Your task to perform on an android device: check android version Image 0: 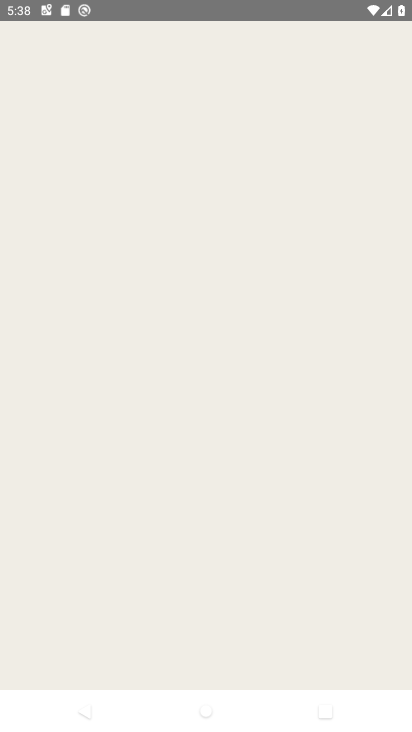
Step 0: drag from (170, 123) to (161, 88)
Your task to perform on an android device: check android version Image 1: 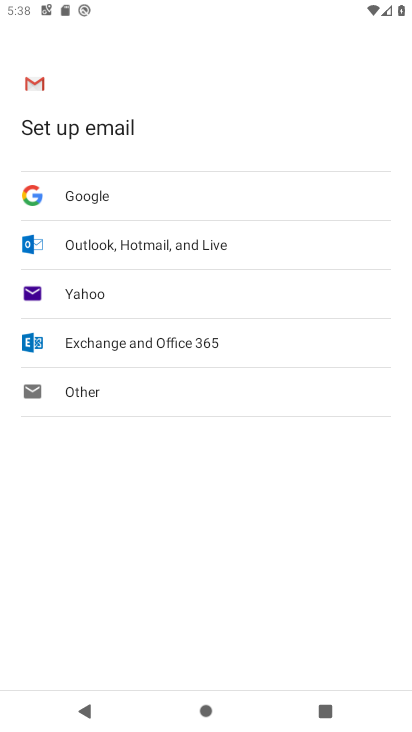
Step 1: press home button
Your task to perform on an android device: check android version Image 2: 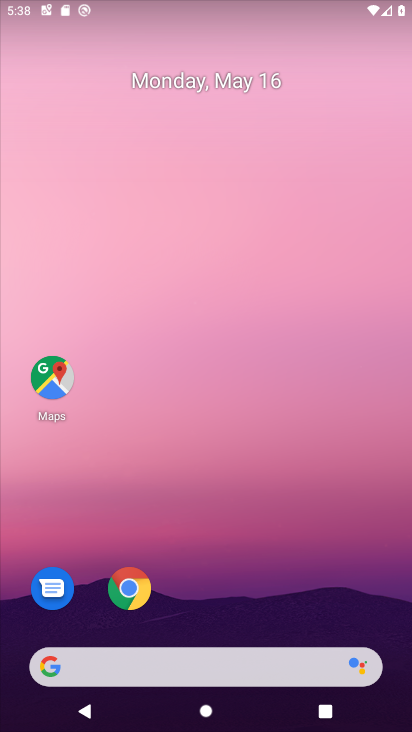
Step 2: drag from (263, 513) to (230, 25)
Your task to perform on an android device: check android version Image 3: 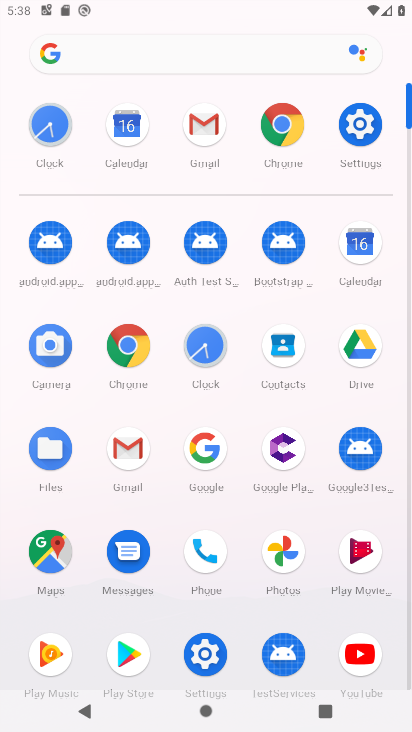
Step 3: click (353, 134)
Your task to perform on an android device: check android version Image 4: 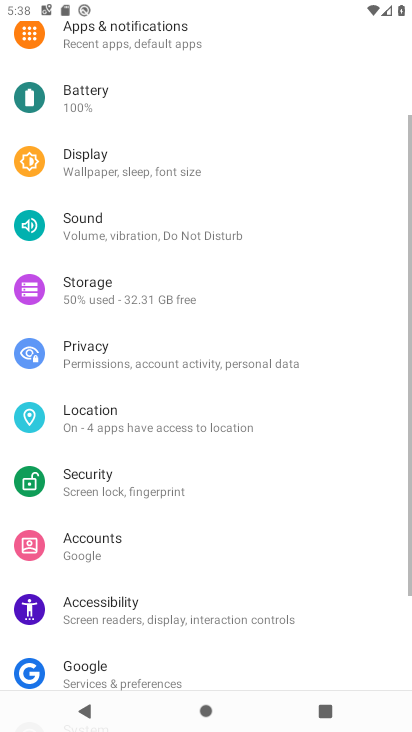
Step 4: drag from (245, 576) to (251, 101)
Your task to perform on an android device: check android version Image 5: 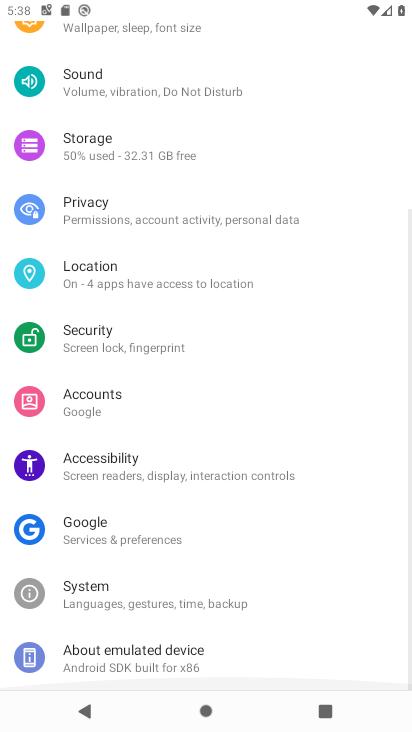
Step 5: drag from (224, 567) to (227, 159)
Your task to perform on an android device: check android version Image 6: 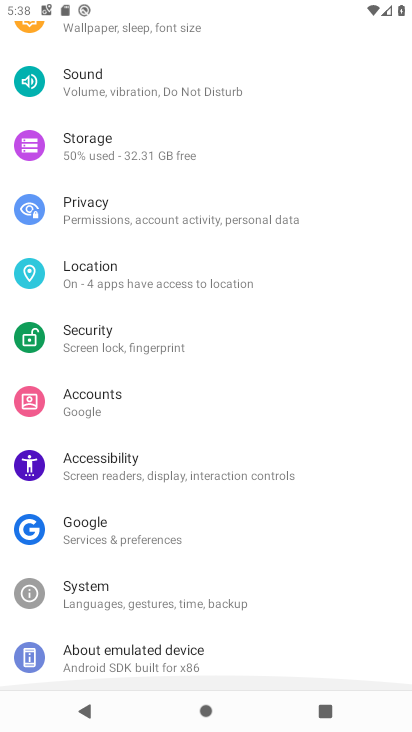
Step 6: click (166, 668)
Your task to perform on an android device: check android version Image 7: 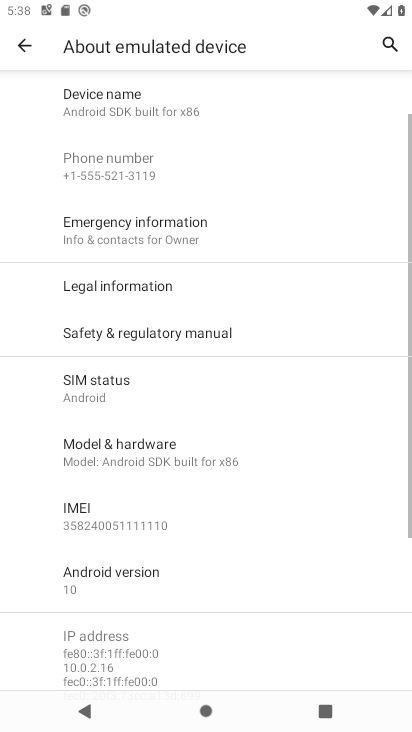
Step 7: drag from (216, 550) to (249, 106)
Your task to perform on an android device: check android version Image 8: 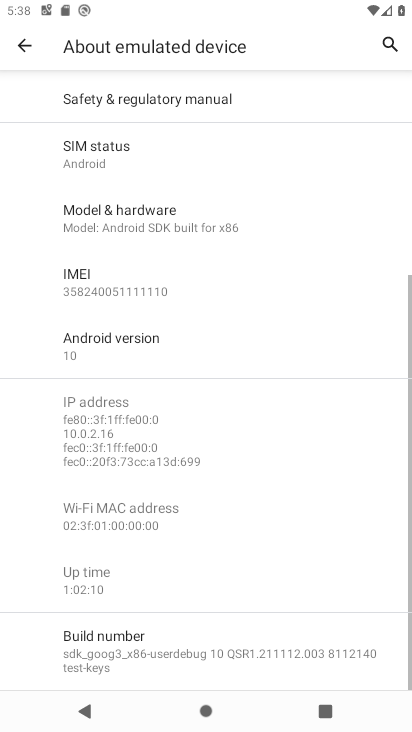
Step 8: click (185, 335)
Your task to perform on an android device: check android version Image 9: 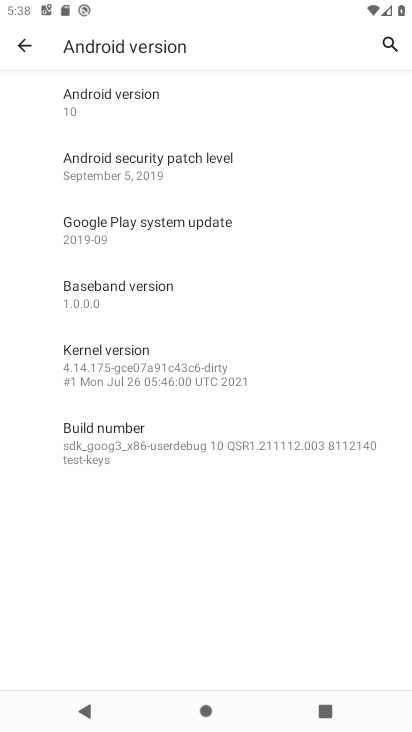
Step 9: task complete